Your task to perform on an android device: check the backup settings in the google photos Image 0: 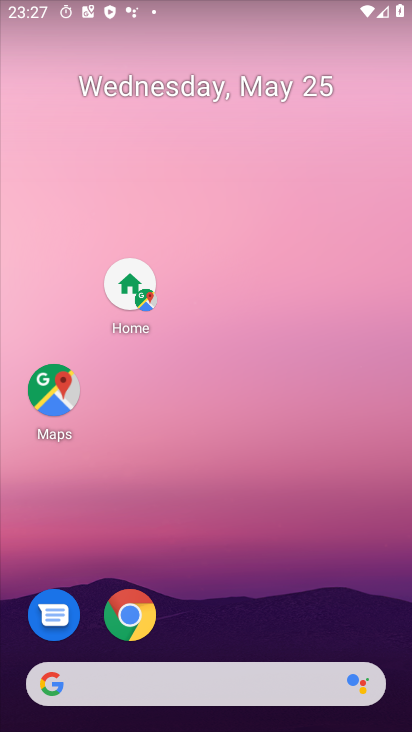
Step 0: press home button
Your task to perform on an android device: check the backup settings in the google photos Image 1: 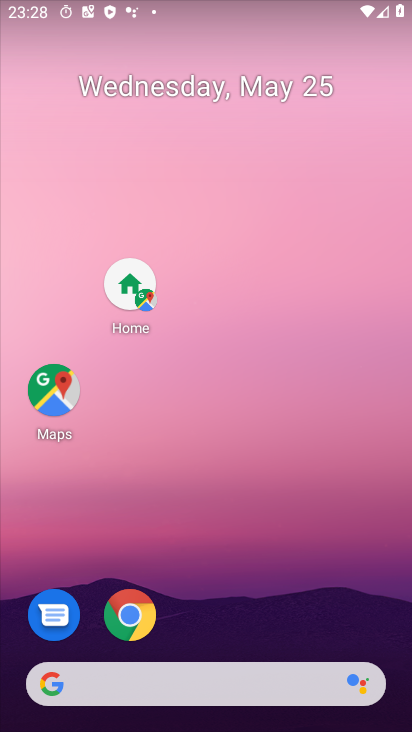
Step 1: drag from (211, 521) to (204, 246)
Your task to perform on an android device: check the backup settings in the google photos Image 2: 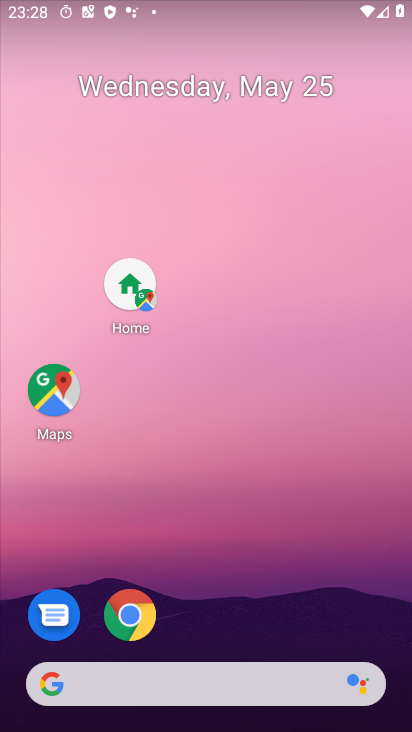
Step 2: drag from (264, 641) to (283, 203)
Your task to perform on an android device: check the backup settings in the google photos Image 3: 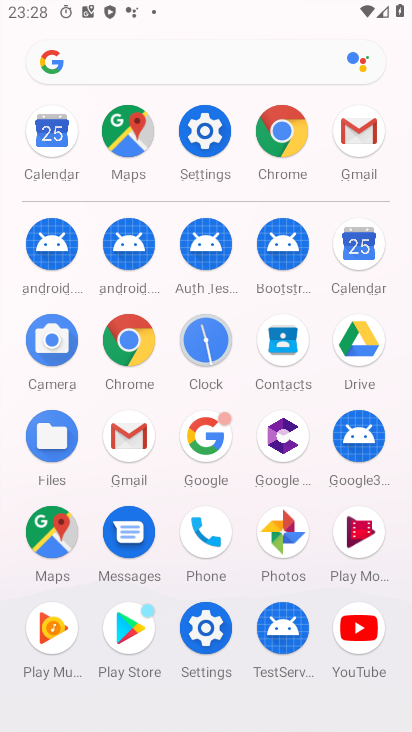
Step 3: click (281, 530)
Your task to perform on an android device: check the backup settings in the google photos Image 4: 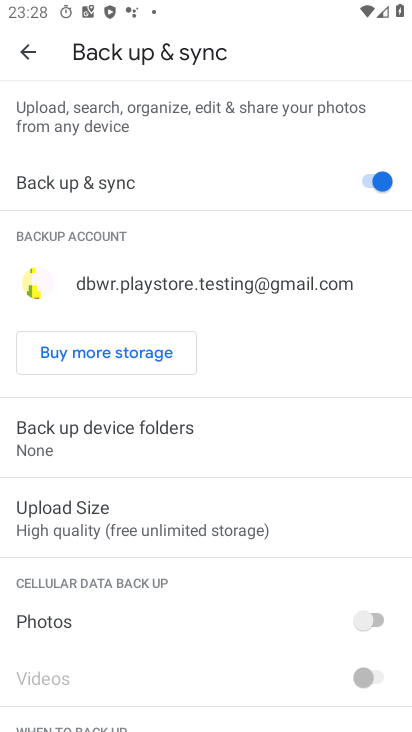
Step 4: click (73, 184)
Your task to perform on an android device: check the backup settings in the google photos Image 5: 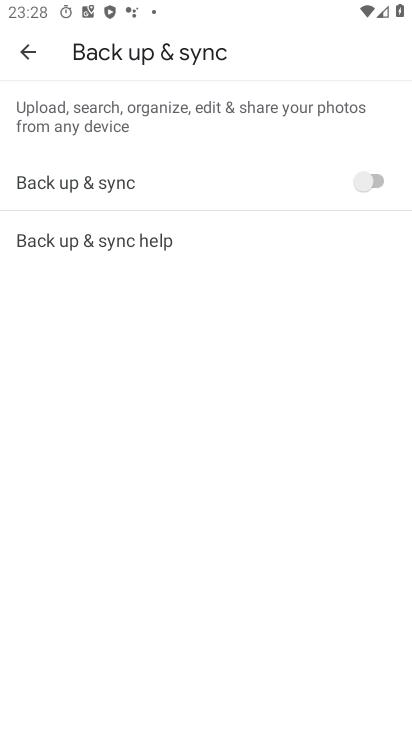
Step 5: click (73, 184)
Your task to perform on an android device: check the backup settings in the google photos Image 6: 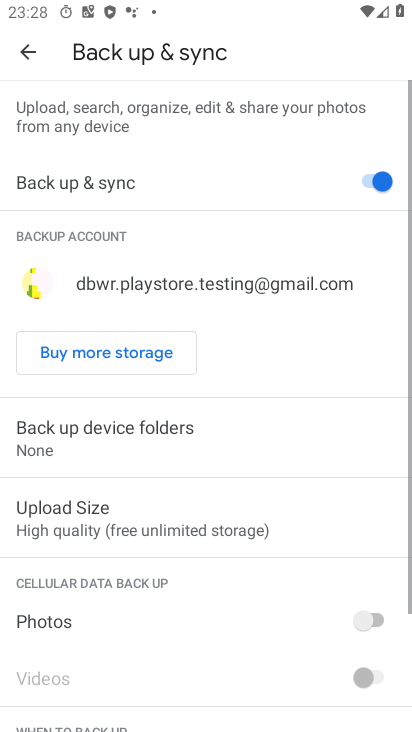
Step 6: task complete